Your task to perform on an android device: Open accessibility settings Image 0: 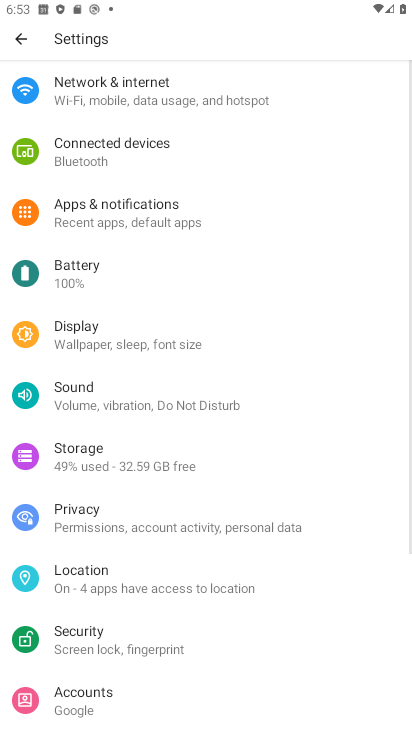
Step 0: press home button
Your task to perform on an android device: Open accessibility settings Image 1: 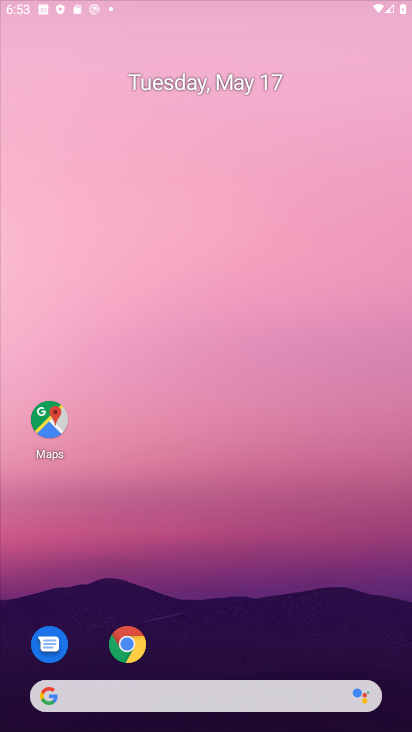
Step 1: drag from (377, 617) to (346, 122)
Your task to perform on an android device: Open accessibility settings Image 2: 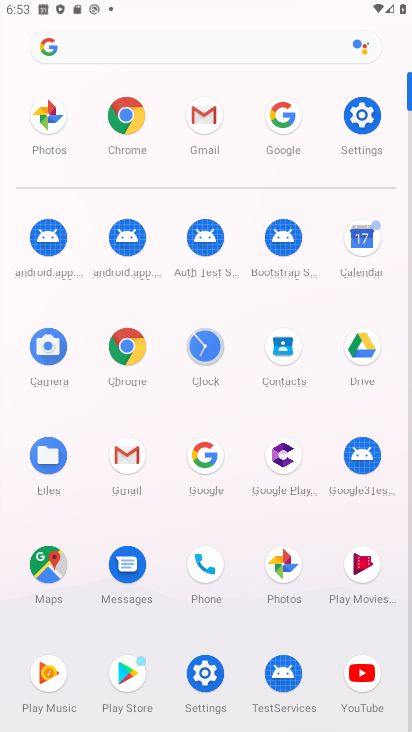
Step 2: click (362, 120)
Your task to perform on an android device: Open accessibility settings Image 3: 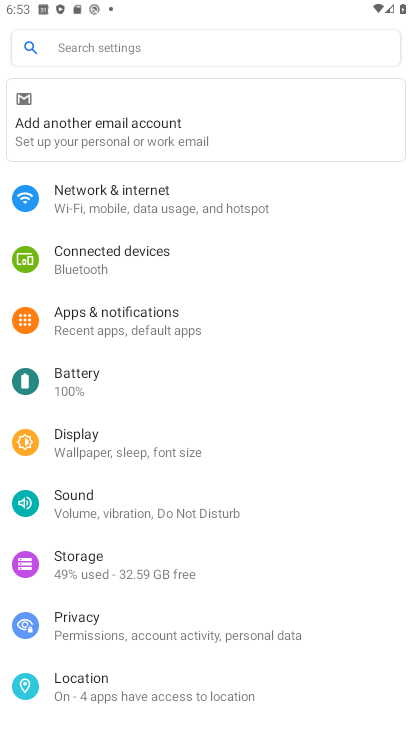
Step 3: drag from (152, 599) to (158, 223)
Your task to perform on an android device: Open accessibility settings Image 4: 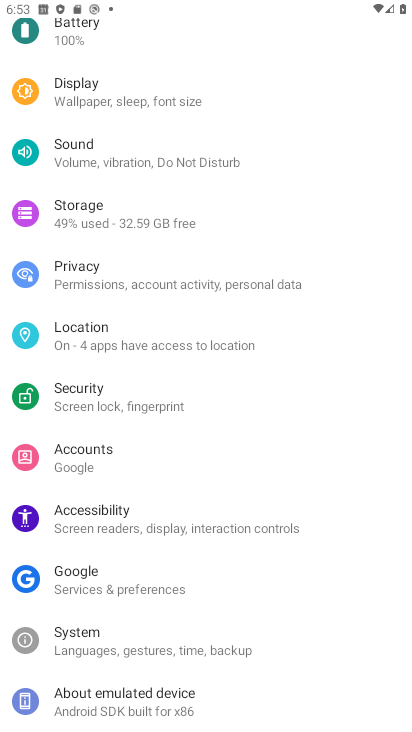
Step 4: click (171, 512)
Your task to perform on an android device: Open accessibility settings Image 5: 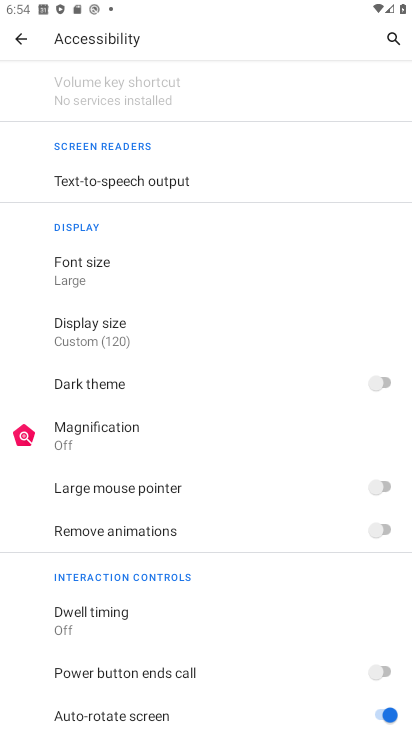
Step 5: task complete